Your task to perform on an android device: check android version Image 0: 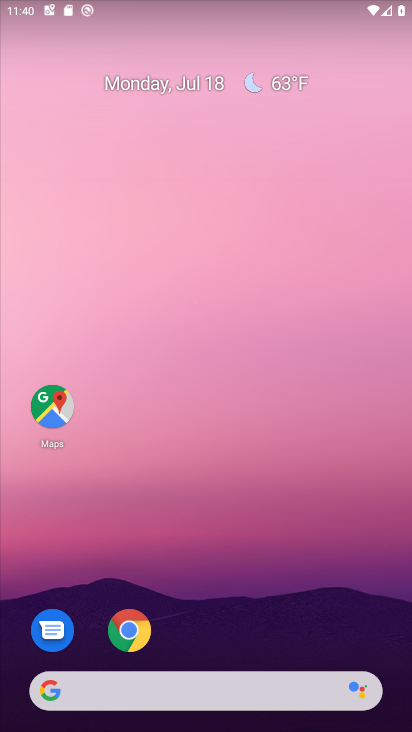
Step 0: drag from (208, 647) to (231, 86)
Your task to perform on an android device: check android version Image 1: 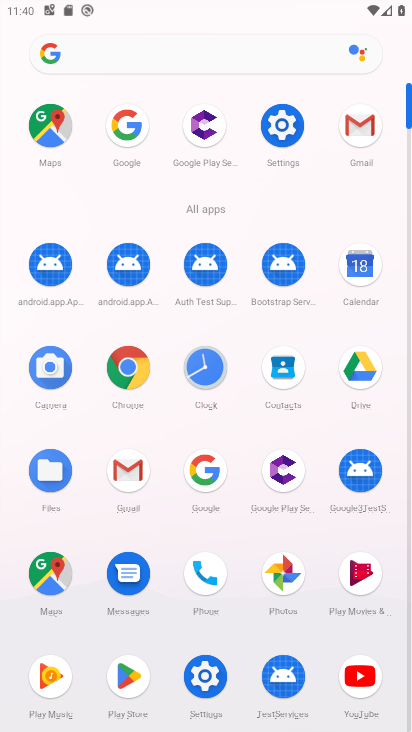
Step 1: click (206, 682)
Your task to perform on an android device: check android version Image 2: 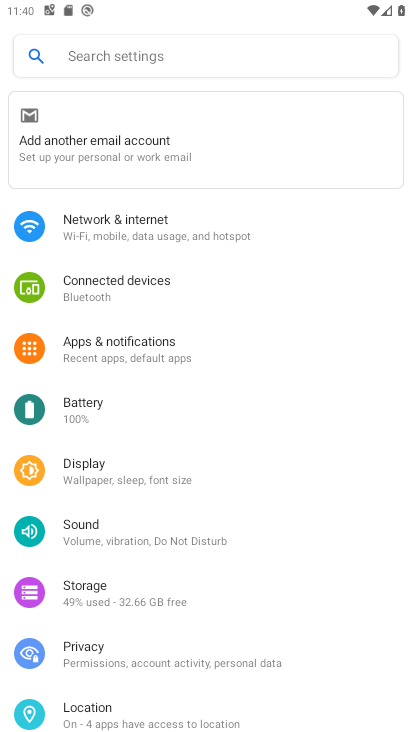
Step 2: drag from (172, 683) to (202, 144)
Your task to perform on an android device: check android version Image 3: 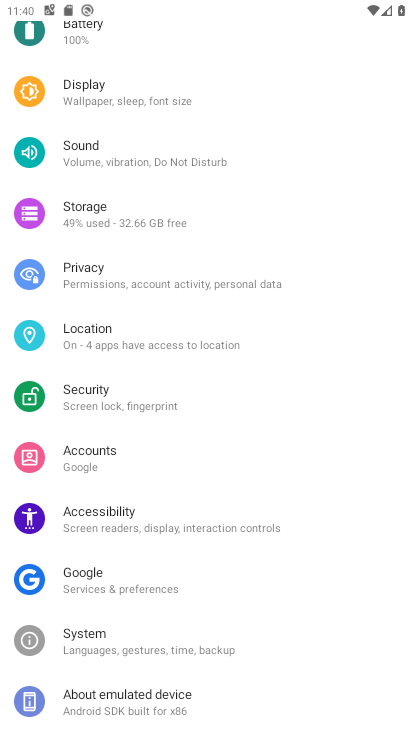
Step 3: click (115, 701)
Your task to perform on an android device: check android version Image 4: 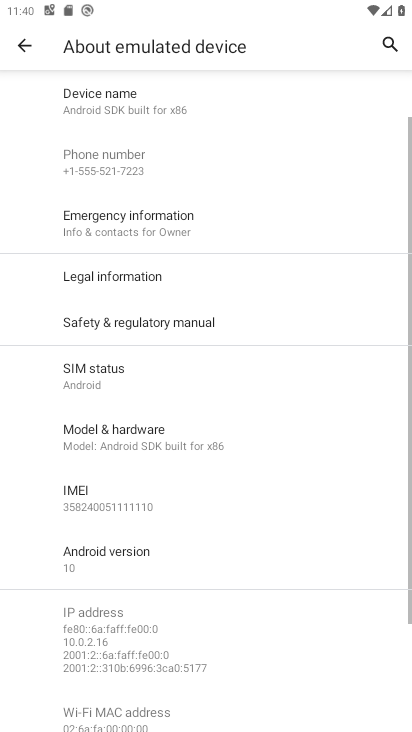
Step 4: drag from (137, 710) to (149, 367)
Your task to perform on an android device: check android version Image 5: 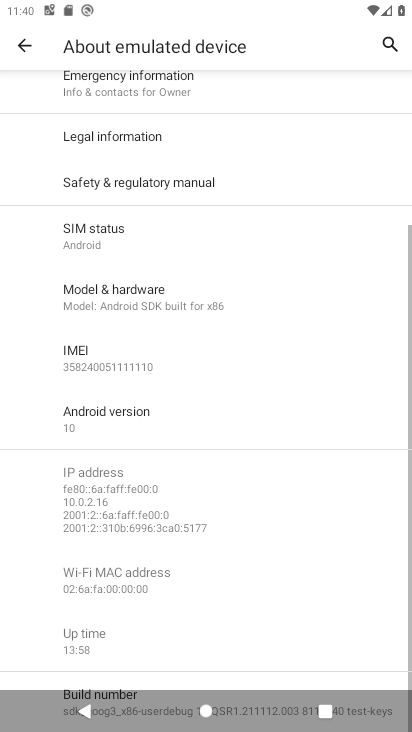
Step 5: click (96, 418)
Your task to perform on an android device: check android version Image 6: 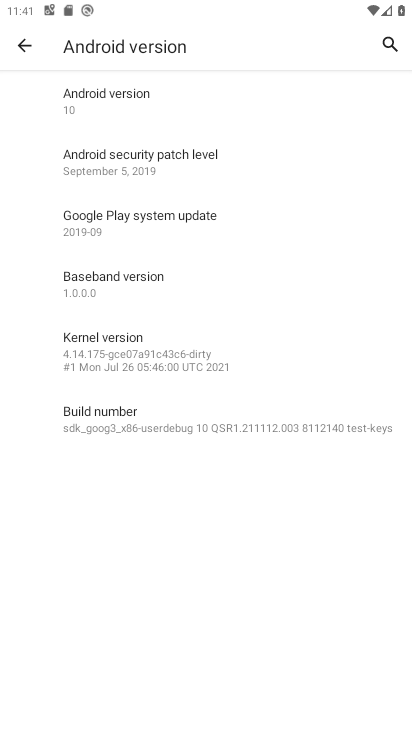
Step 6: task complete